Your task to perform on an android device: open chrome and create a bookmark for the current page Image 0: 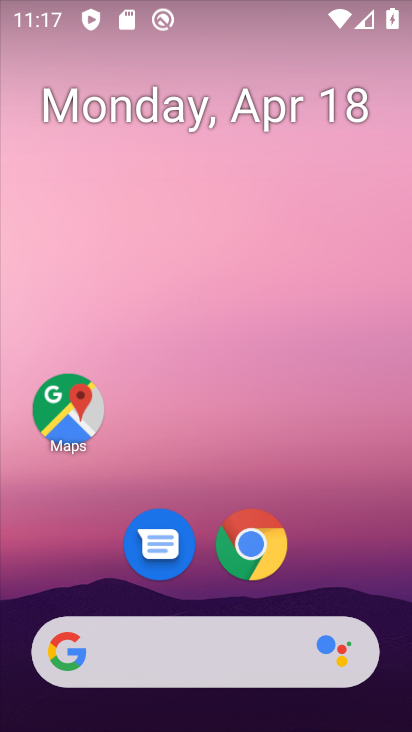
Step 0: click (252, 551)
Your task to perform on an android device: open chrome and create a bookmark for the current page Image 1: 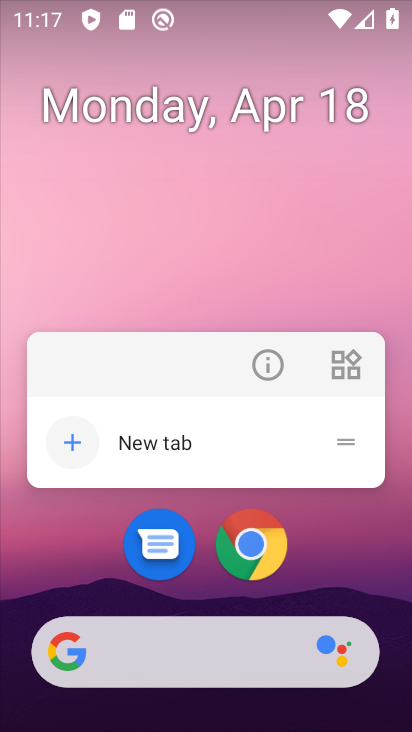
Step 1: click (248, 549)
Your task to perform on an android device: open chrome and create a bookmark for the current page Image 2: 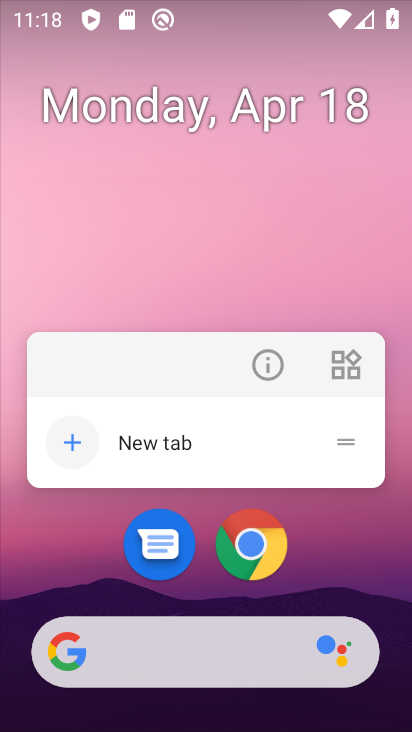
Step 2: click (253, 542)
Your task to perform on an android device: open chrome and create a bookmark for the current page Image 3: 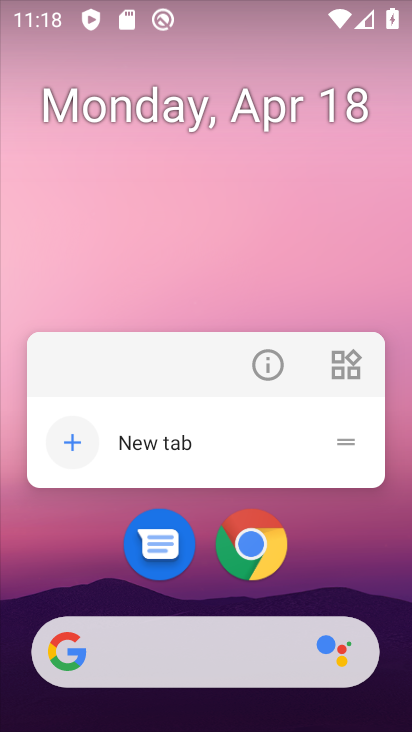
Step 3: click (253, 542)
Your task to perform on an android device: open chrome and create a bookmark for the current page Image 4: 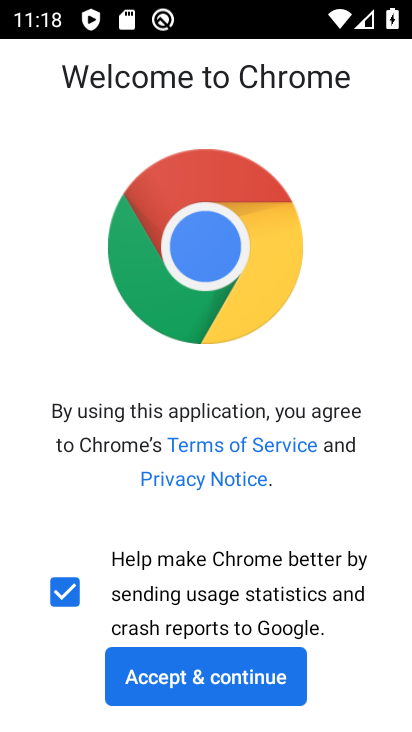
Step 4: click (211, 687)
Your task to perform on an android device: open chrome and create a bookmark for the current page Image 5: 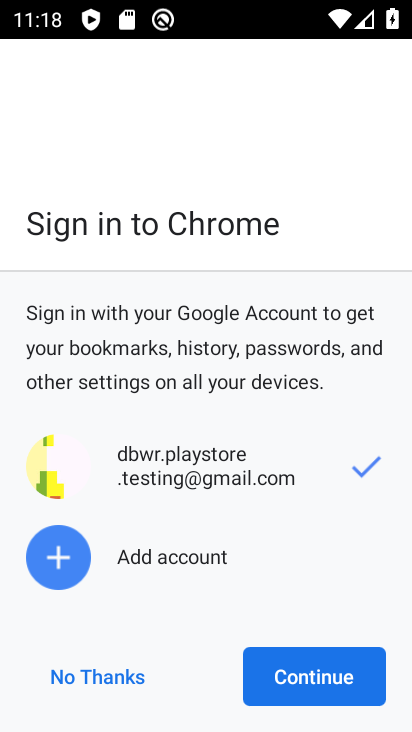
Step 5: click (121, 682)
Your task to perform on an android device: open chrome and create a bookmark for the current page Image 6: 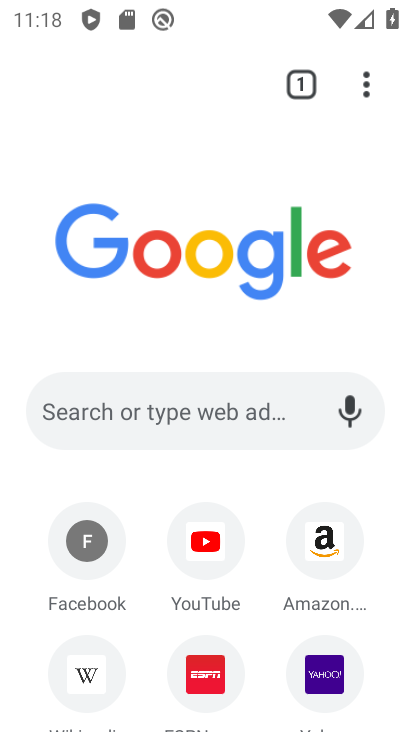
Step 6: click (205, 427)
Your task to perform on an android device: open chrome and create a bookmark for the current page Image 7: 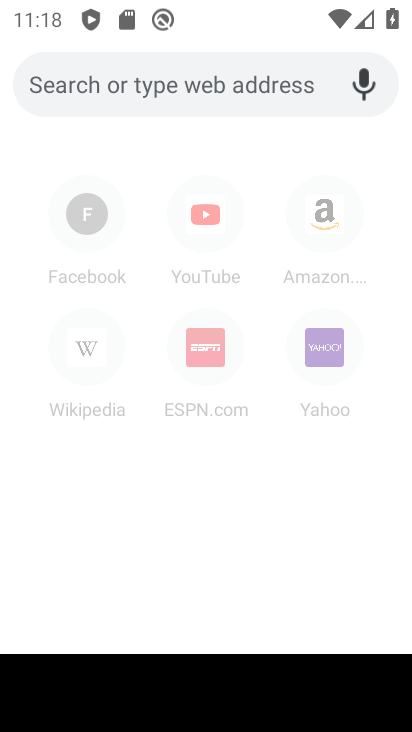
Step 7: type "nykaa"
Your task to perform on an android device: open chrome and create a bookmark for the current page Image 8: 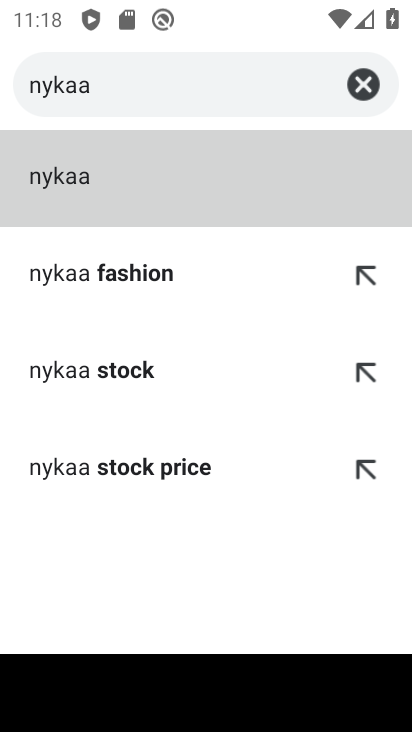
Step 8: click (103, 276)
Your task to perform on an android device: open chrome and create a bookmark for the current page Image 9: 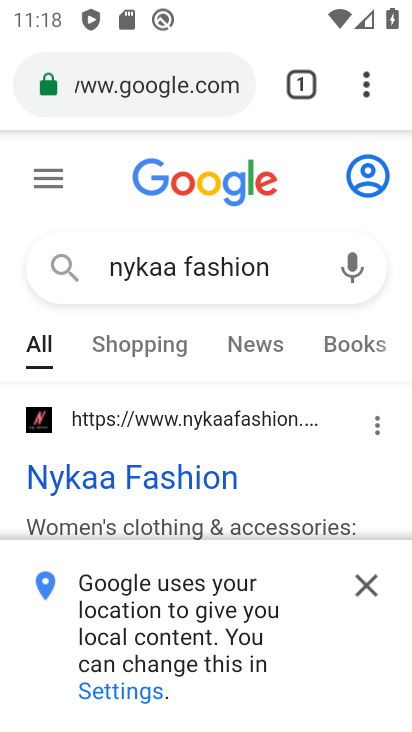
Step 9: click (49, 473)
Your task to perform on an android device: open chrome and create a bookmark for the current page Image 10: 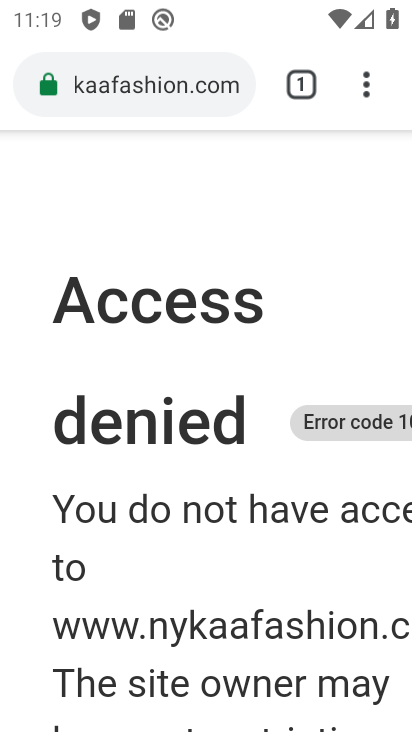
Step 10: click (369, 81)
Your task to perform on an android device: open chrome and create a bookmark for the current page Image 11: 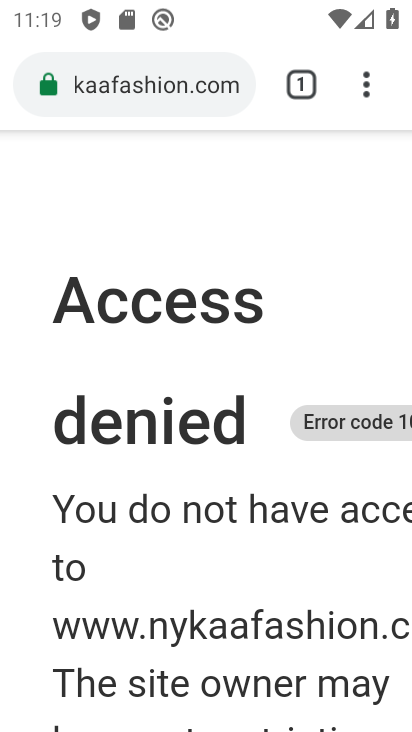
Step 11: click (366, 84)
Your task to perform on an android device: open chrome and create a bookmark for the current page Image 12: 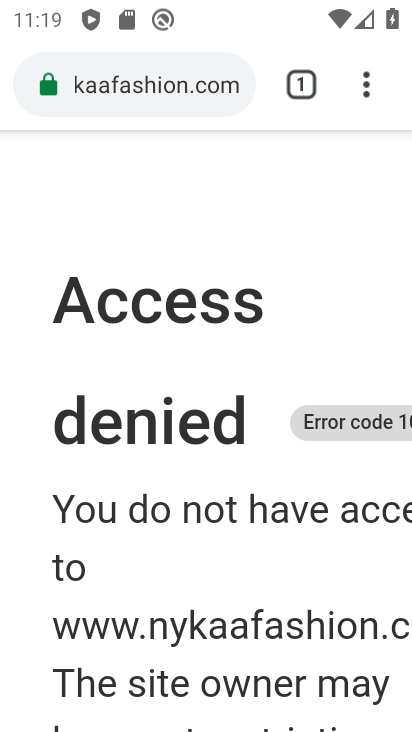
Step 12: click (366, 84)
Your task to perform on an android device: open chrome and create a bookmark for the current page Image 13: 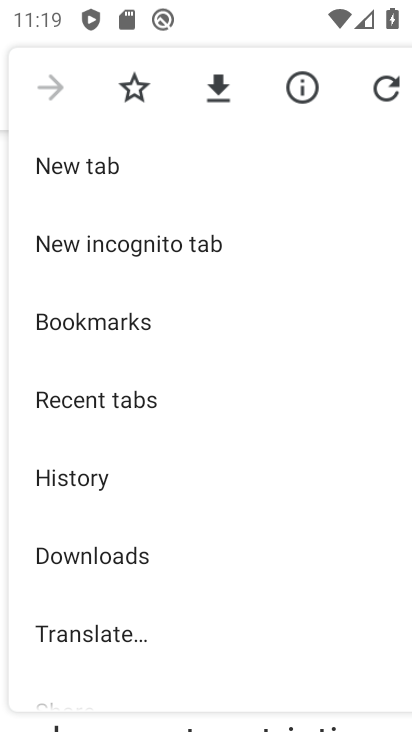
Step 13: click (135, 93)
Your task to perform on an android device: open chrome and create a bookmark for the current page Image 14: 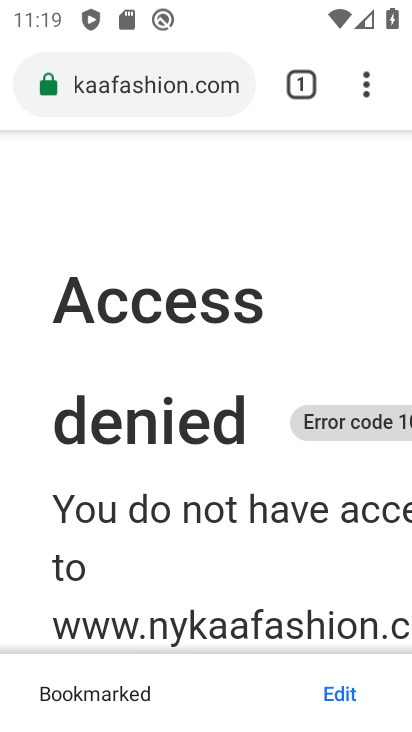
Step 14: task complete